Your task to perform on an android device: remove spam from my inbox in the gmail app Image 0: 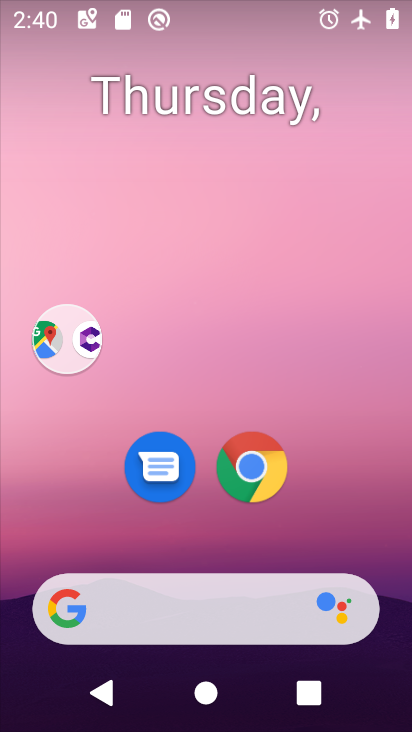
Step 0: drag from (194, 561) to (123, 38)
Your task to perform on an android device: remove spam from my inbox in the gmail app Image 1: 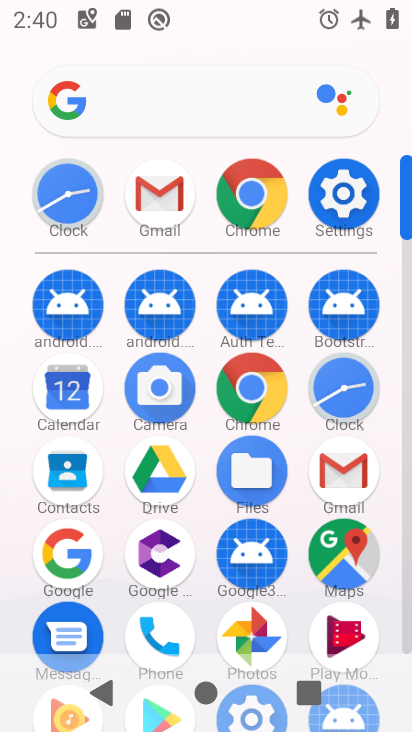
Step 1: click (361, 486)
Your task to perform on an android device: remove spam from my inbox in the gmail app Image 2: 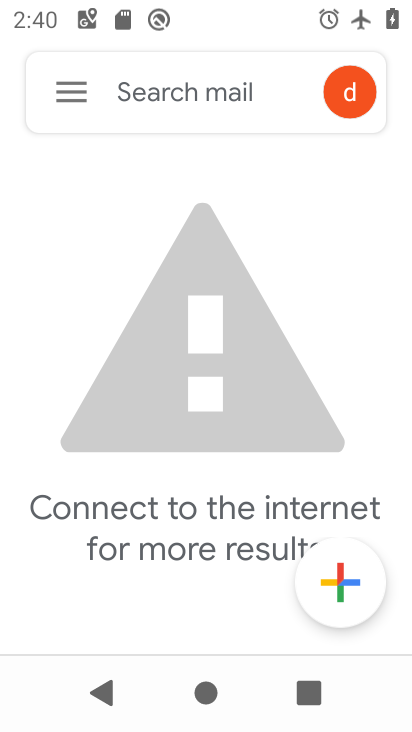
Step 2: click (56, 89)
Your task to perform on an android device: remove spam from my inbox in the gmail app Image 3: 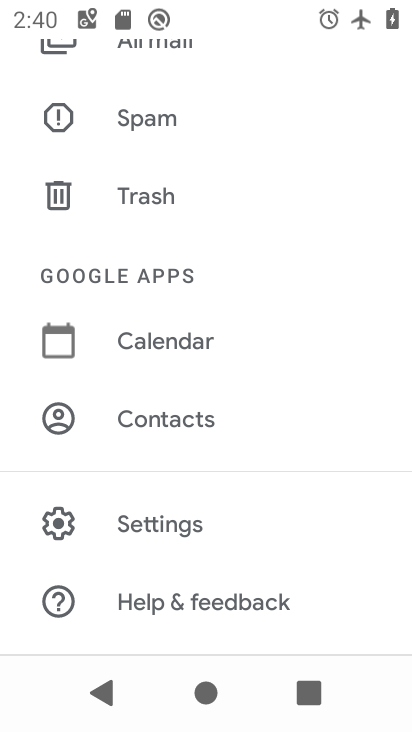
Step 3: click (140, 117)
Your task to perform on an android device: remove spam from my inbox in the gmail app Image 4: 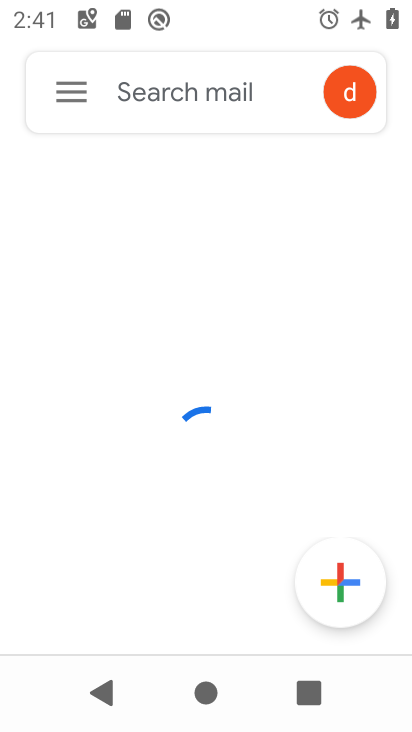
Step 4: task complete